Your task to perform on an android device: turn on wifi Image 0: 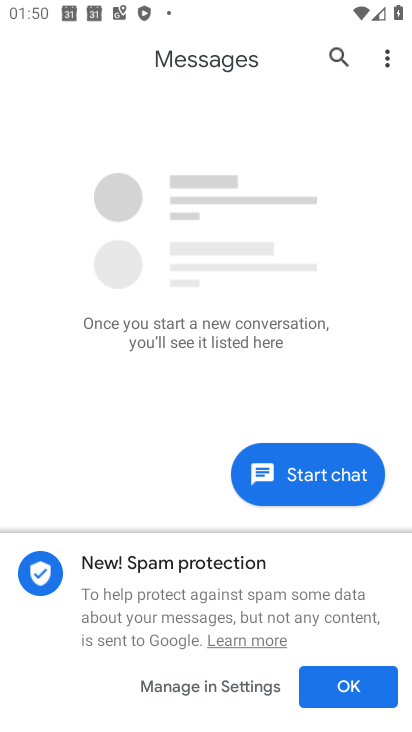
Step 0: drag from (193, 727) to (193, 55)
Your task to perform on an android device: turn on wifi Image 1: 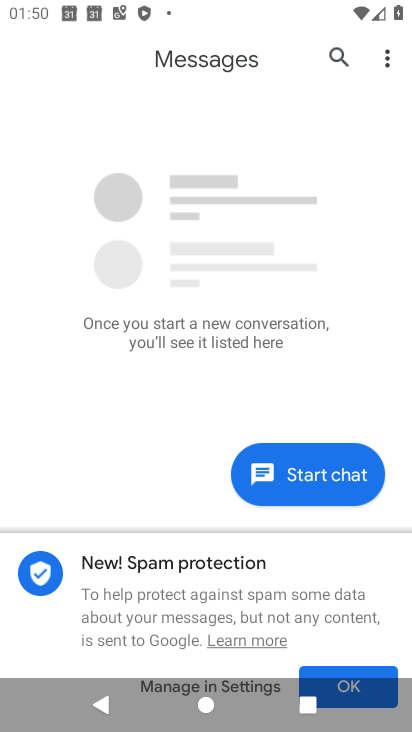
Step 1: press home button
Your task to perform on an android device: turn on wifi Image 2: 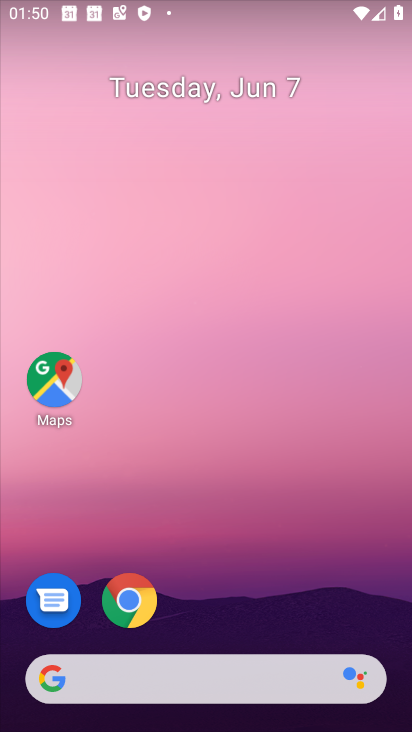
Step 2: drag from (224, 719) to (200, 84)
Your task to perform on an android device: turn on wifi Image 3: 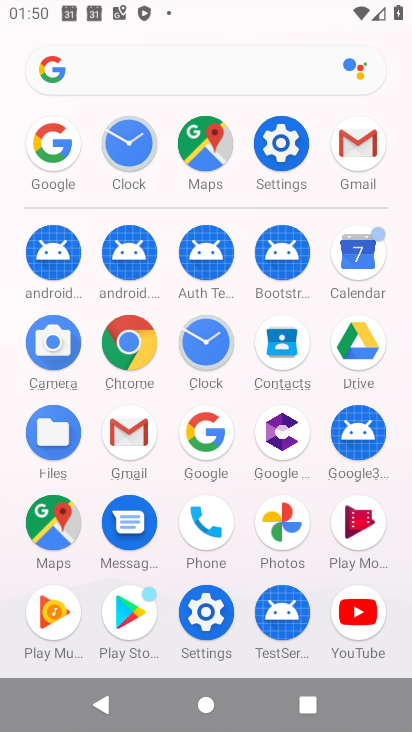
Step 3: click (279, 146)
Your task to perform on an android device: turn on wifi Image 4: 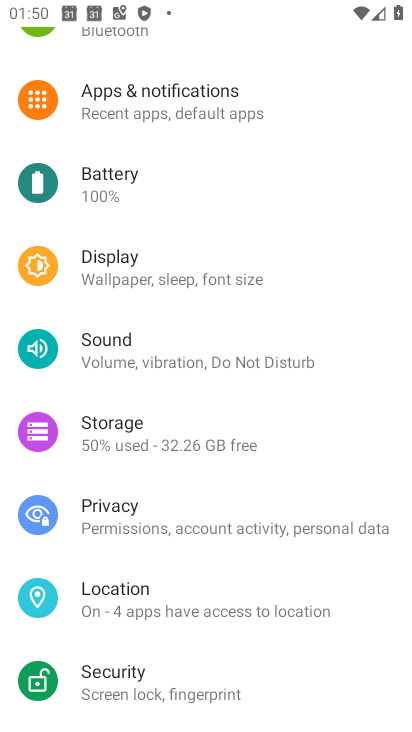
Step 4: drag from (192, 120) to (198, 519)
Your task to perform on an android device: turn on wifi Image 5: 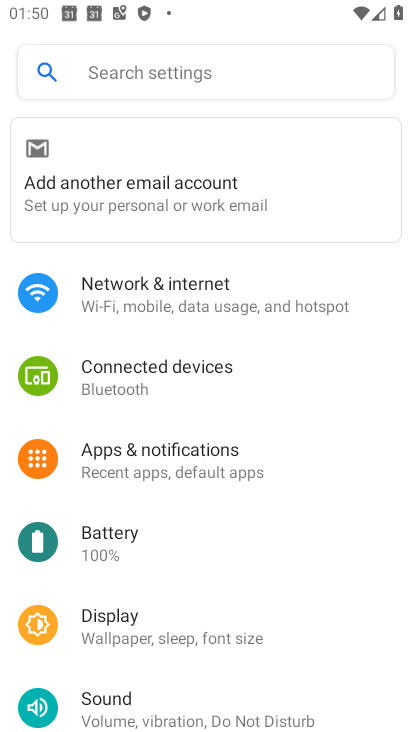
Step 5: click (168, 284)
Your task to perform on an android device: turn on wifi Image 6: 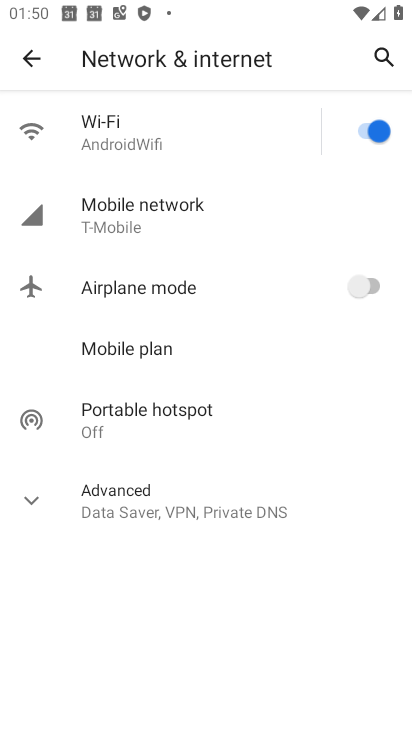
Step 6: task complete